Your task to perform on an android device: What's the weather going to be tomorrow? Image 0: 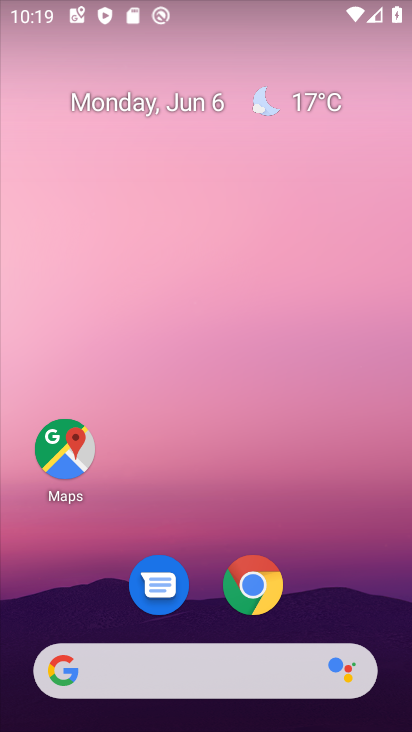
Step 0: click (267, 109)
Your task to perform on an android device: What's the weather going to be tomorrow? Image 1: 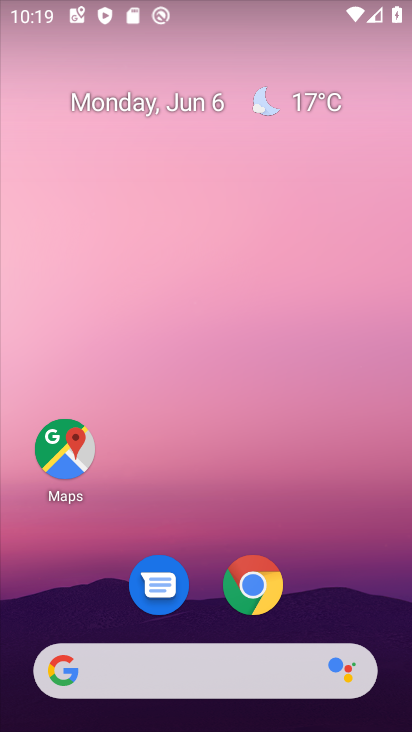
Step 1: click (267, 109)
Your task to perform on an android device: What's the weather going to be tomorrow? Image 2: 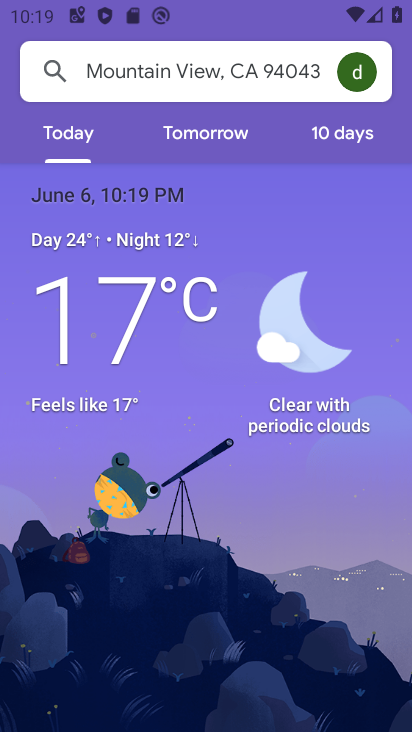
Step 2: click (204, 137)
Your task to perform on an android device: What's the weather going to be tomorrow? Image 3: 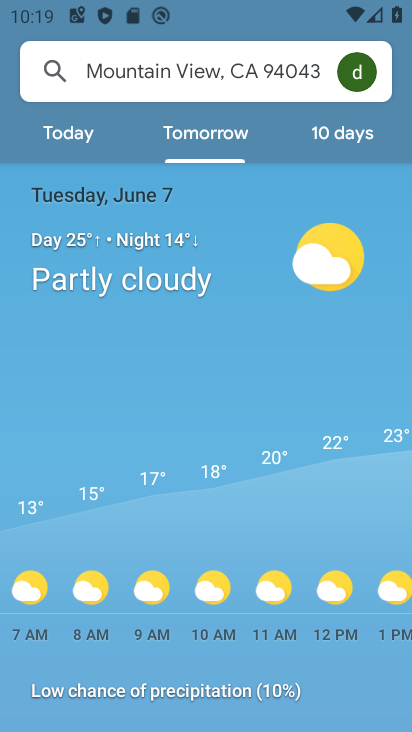
Step 3: task complete